Your task to perform on an android device: Go to Yahoo.com Image 0: 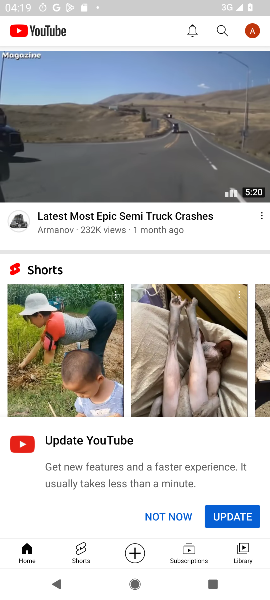
Step 0: press home button
Your task to perform on an android device: Go to Yahoo.com Image 1: 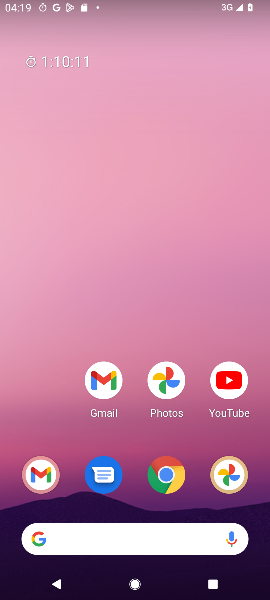
Step 1: drag from (62, 435) to (52, 211)
Your task to perform on an android device: Go to Yahoo.com Image 2: 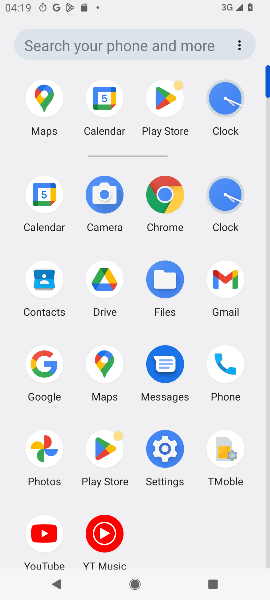
Step 2: click (163, 193)
Your task to perform on an android device: Go to Yahoo.com Image 3: 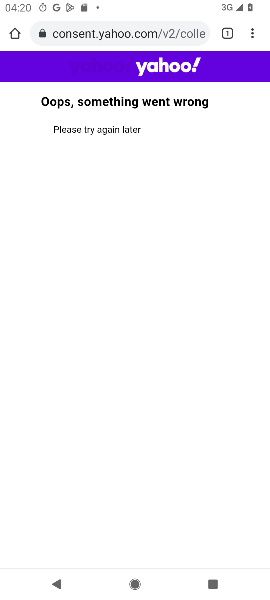
Step 3: task complete